Your task to perform on an android device: Go to Google Image 0: 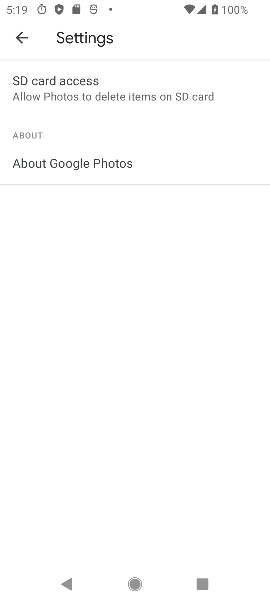
Step 0: click (21, 36)
Your task to perform on an android device: Go to Google Image 1: 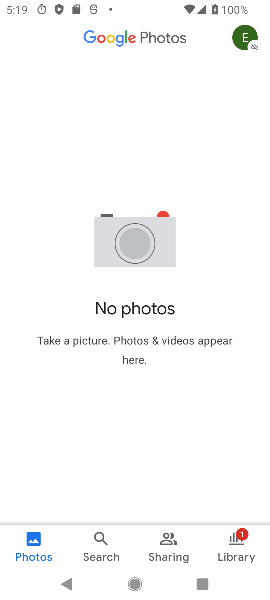
Step 1: press back button
Your task to perform on an android device: Go to Google Image 2: 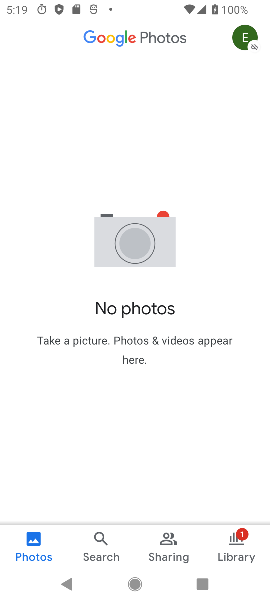
Step 2: press back button
Your task to perform on an android device: Go to Google Image 3: 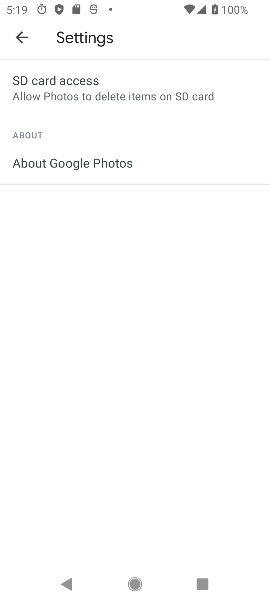
Step 3: press back button
Your task to perform on an android device: Go to Google Image 4: 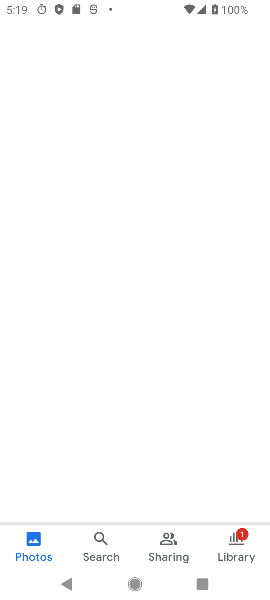
Step 4: press back button
Your task to perform on an android device: Go to Google Image 5: 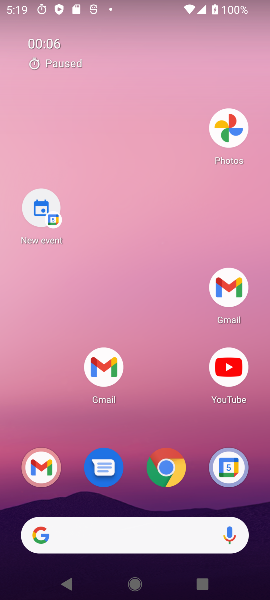
Step 5: press back button
Your task to perform on an android device: Go to Google Image 6: 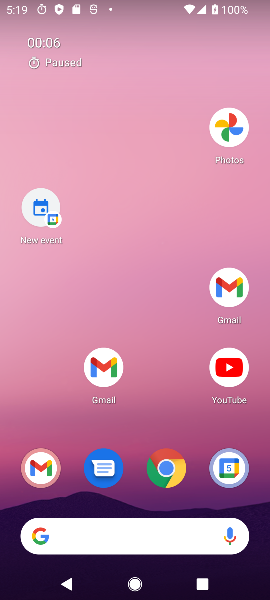
Step 6: drag from (131, 462) to (113, 167)
Your task to perform on an android device: Go to Google Image 7: 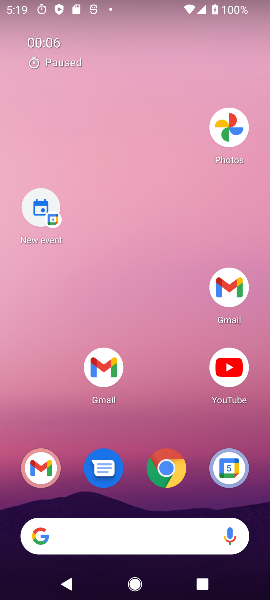
Step 7: drag from (121, 321) to (83, 118)
Your task to perform on an android device: Go to Google Image 8: 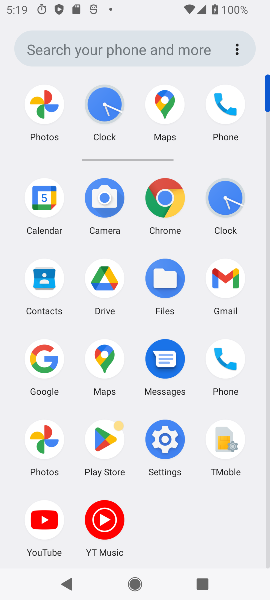
Step 8: click (40, 364)
Your task to perform on an android device: Go to Google Image 9: 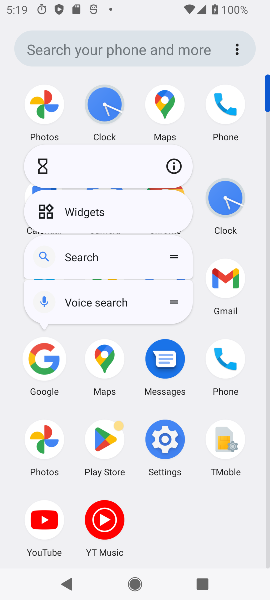
Step 9: click (40, 364)
Your task to perform on an android device: Go to Google Image 10: 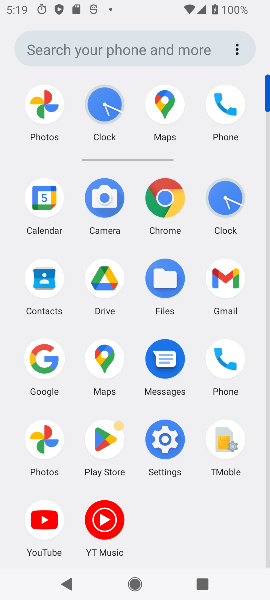
Step 10: click (40, 364)
Your task to perform on an android device: Go to Google Image 11: 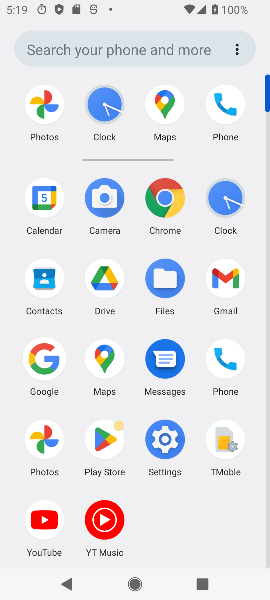
Step 11: click (40, 364)
Your task to perform on an android device: Go to Google Image 12: 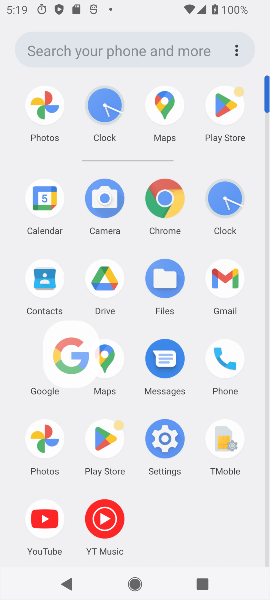
Step 12: click (40, 364)
Your task to perform on an android device: Go to Google Image 13: 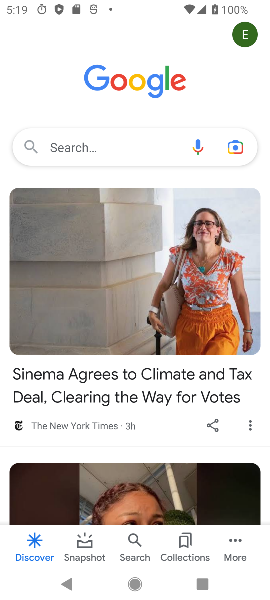
Step 13: task complete